Your task to perform on an android device: see sites visited before in the chrome app Image 0: 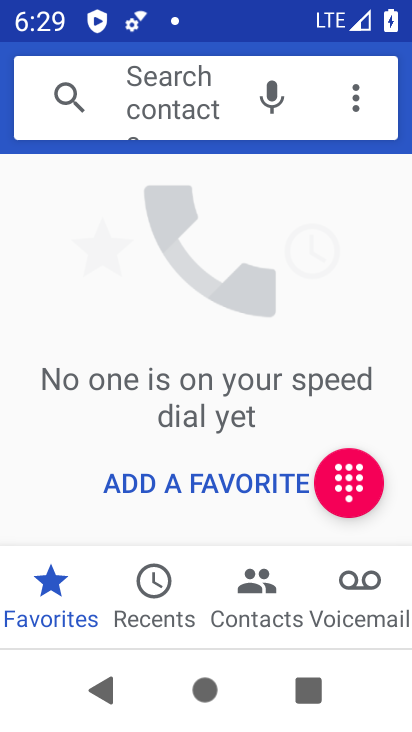
Step 0: press home button
Your task to perform on an android device: see sites visited before in the chrome app Image 1: 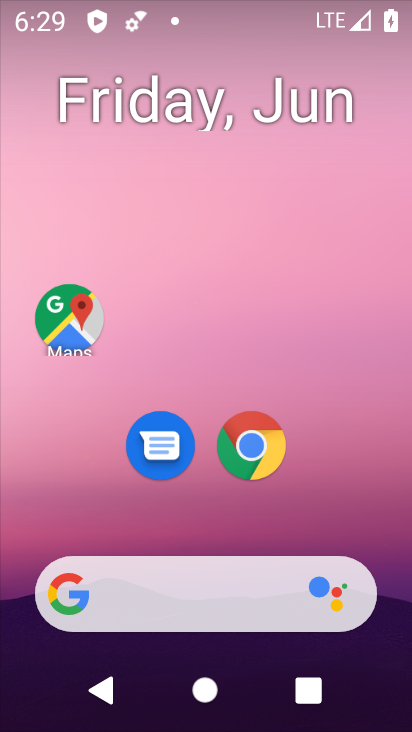
Step 1: click (253, 440)
Your task to perform on an android device: see sites visited before in the chrome app Image 2: 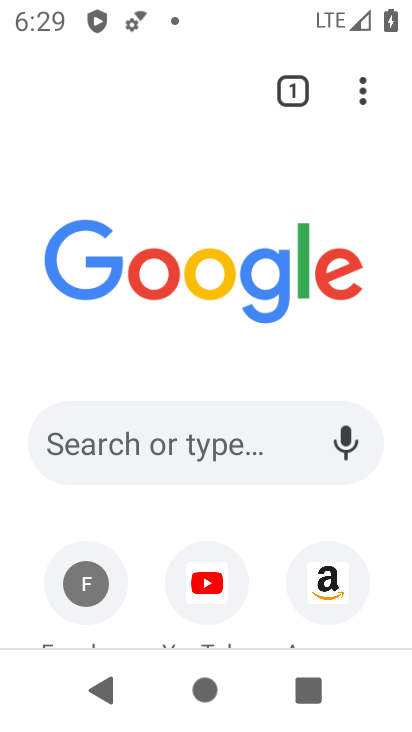
Step 2: click (359, 101)
Your task to perform on an android device: see sites visited before in the chrome app Image 3: 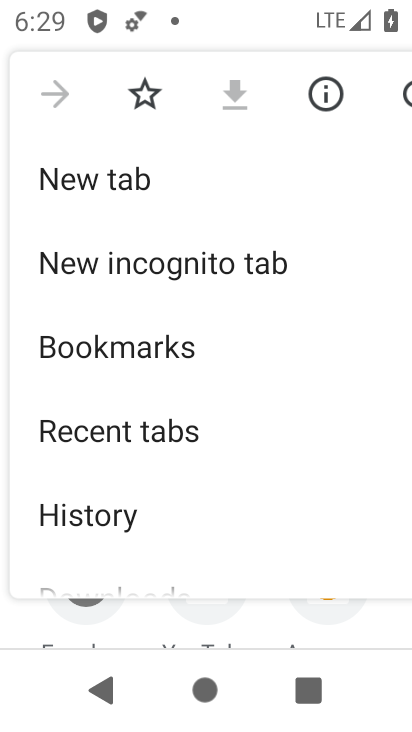
Step 3: click (102, 510)
Your task to perform on an android device: see sites visited before in the chrome app Image 4: 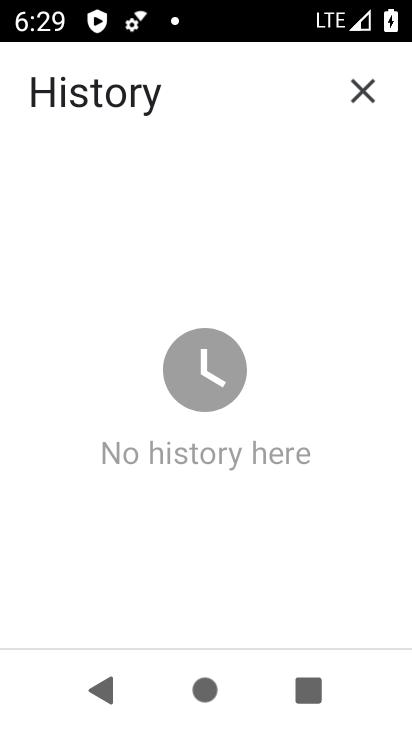
Step 4: task complete